Your task to perform on an android device: Open calendar and show me the third week of next month Image 0: 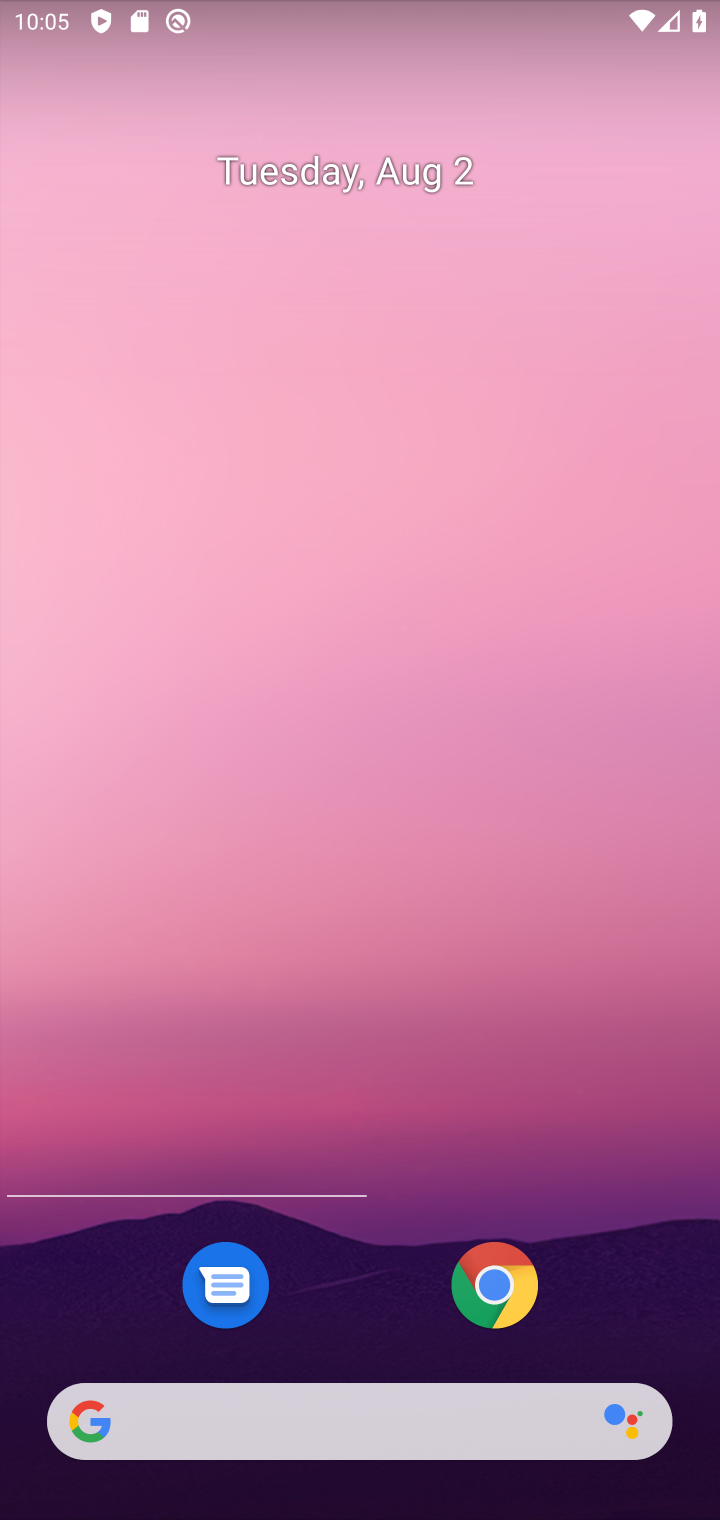
Step 0: click (620, 83)
Your task to perform on an android device: Open calendar and show me the third week of next month Image 1: 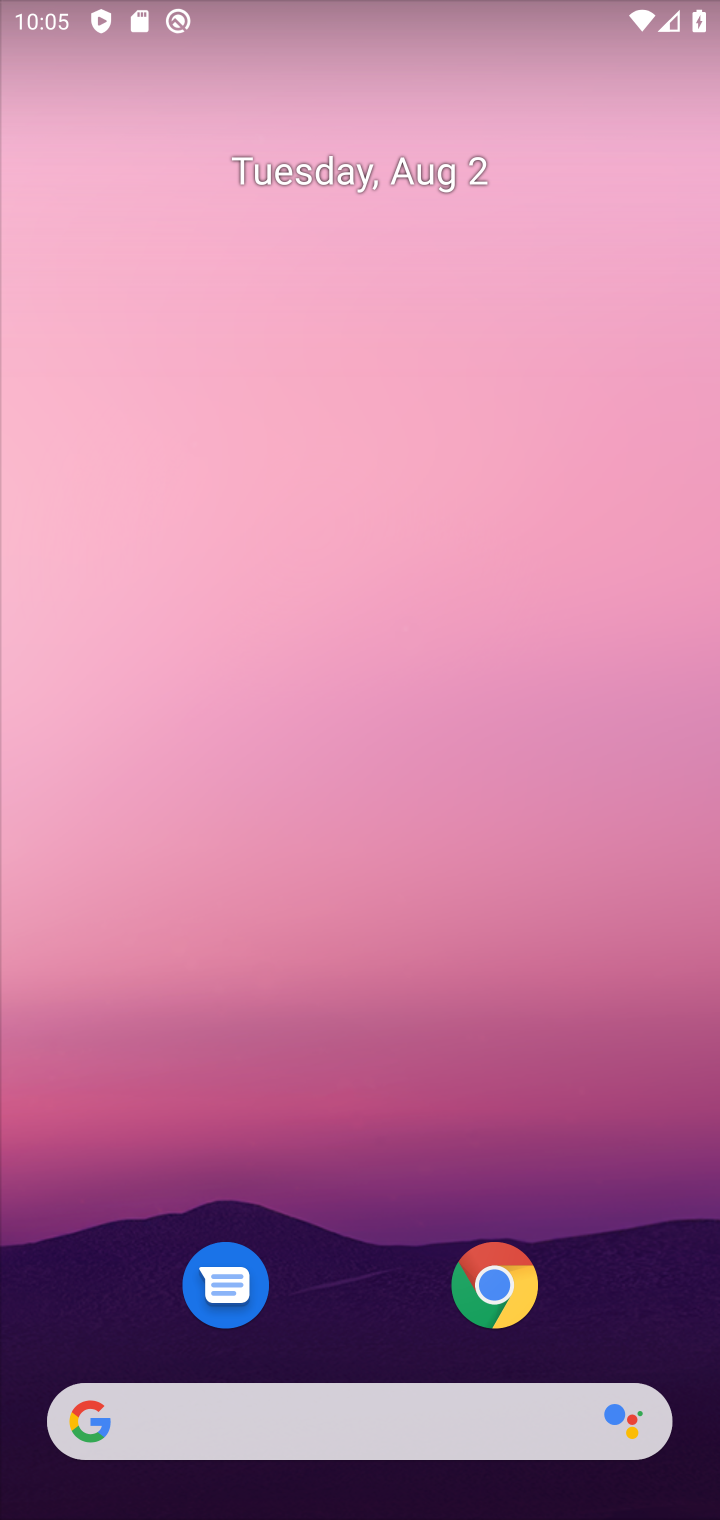
Step 1: drag from (357, 1387) to (632, 263)
Your task to perform on an android device: Open calendar and show me the third week of next month Image 2: 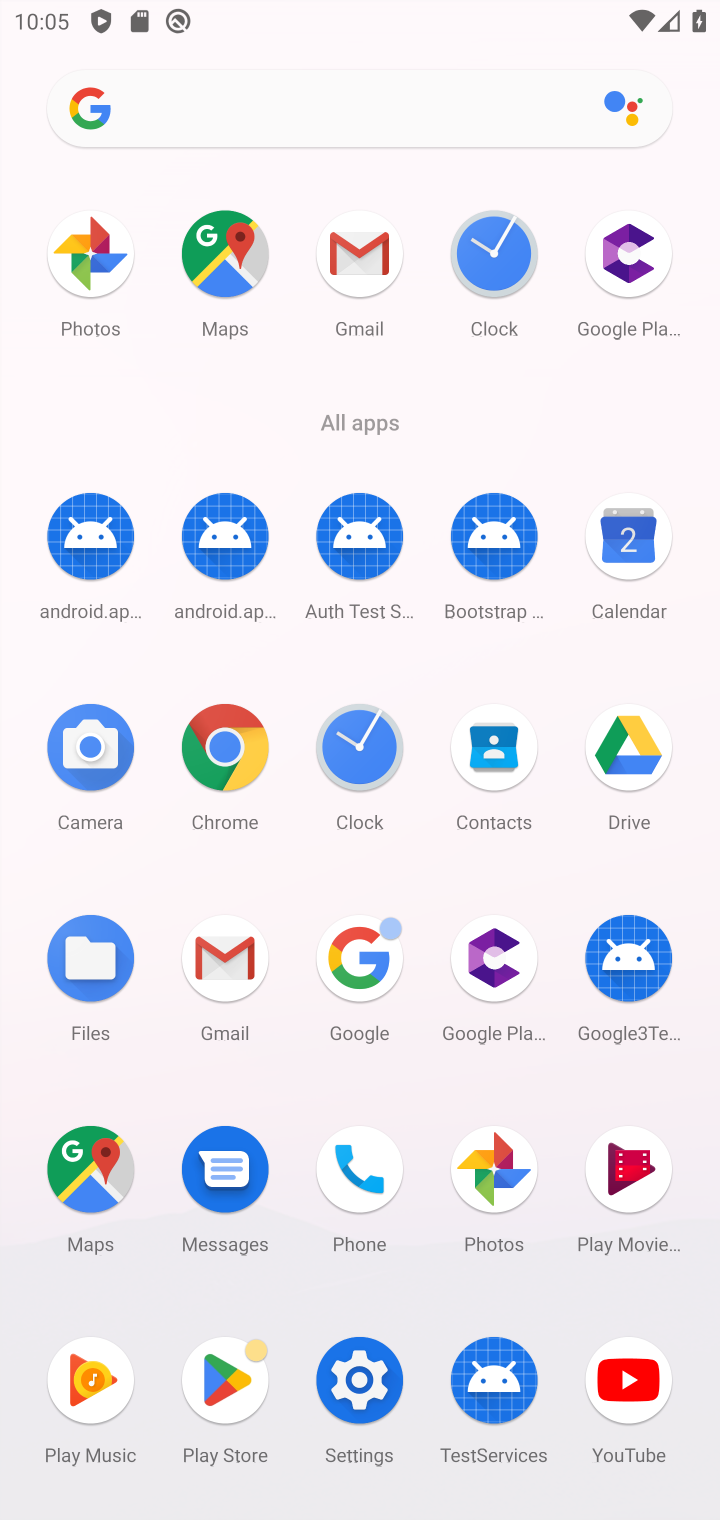
Step 2: drag from (316, 1349) to (544, 338)
Your task to perform on an android device: Open calendar and show me the third week of next month Image 3: 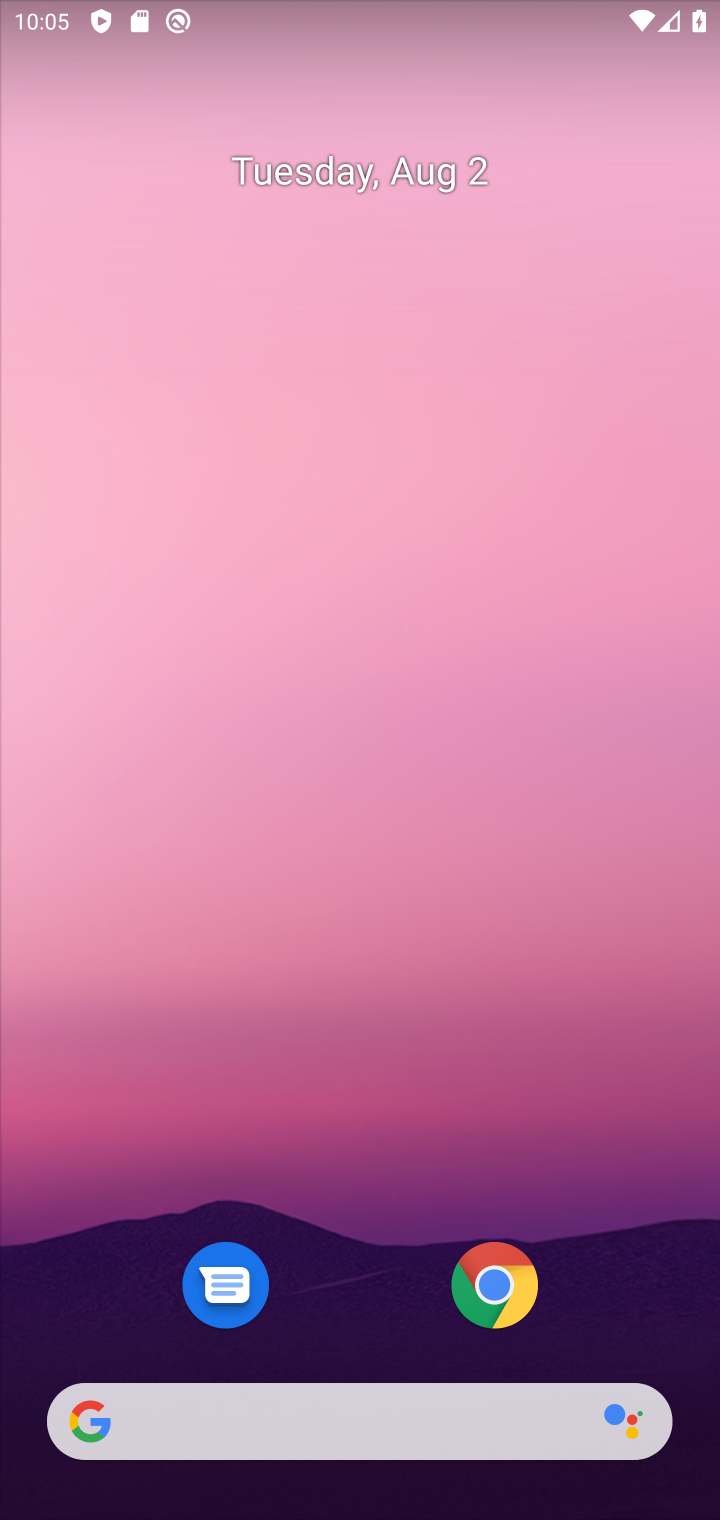
Step 3: drag from (385, 982) to (562, 24)
Your task to perform on an android device: Open calendar and show me the third week of next month Image 4: 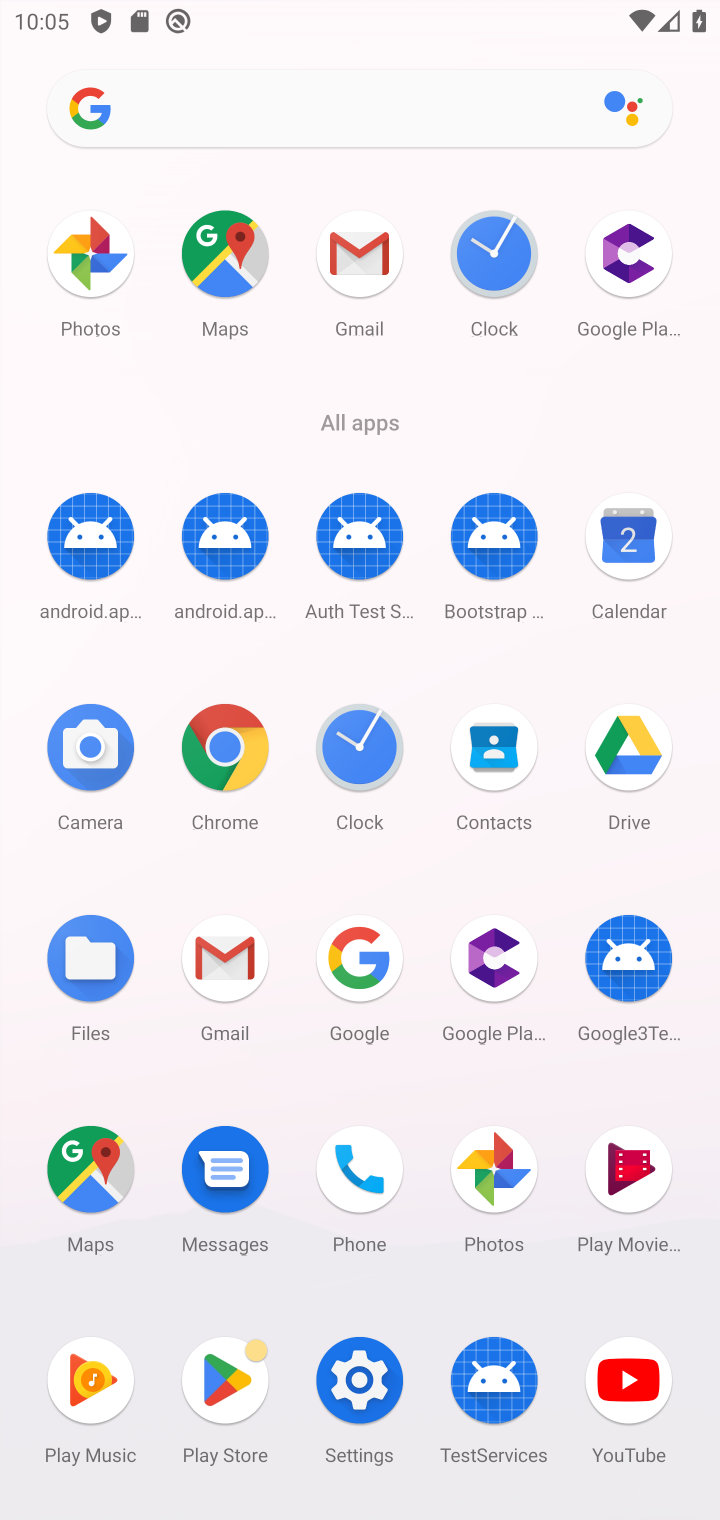
Step 4: click (618, 536)
Your task to perform on an android device: Open calendar and show me the third week of next month Image 5: 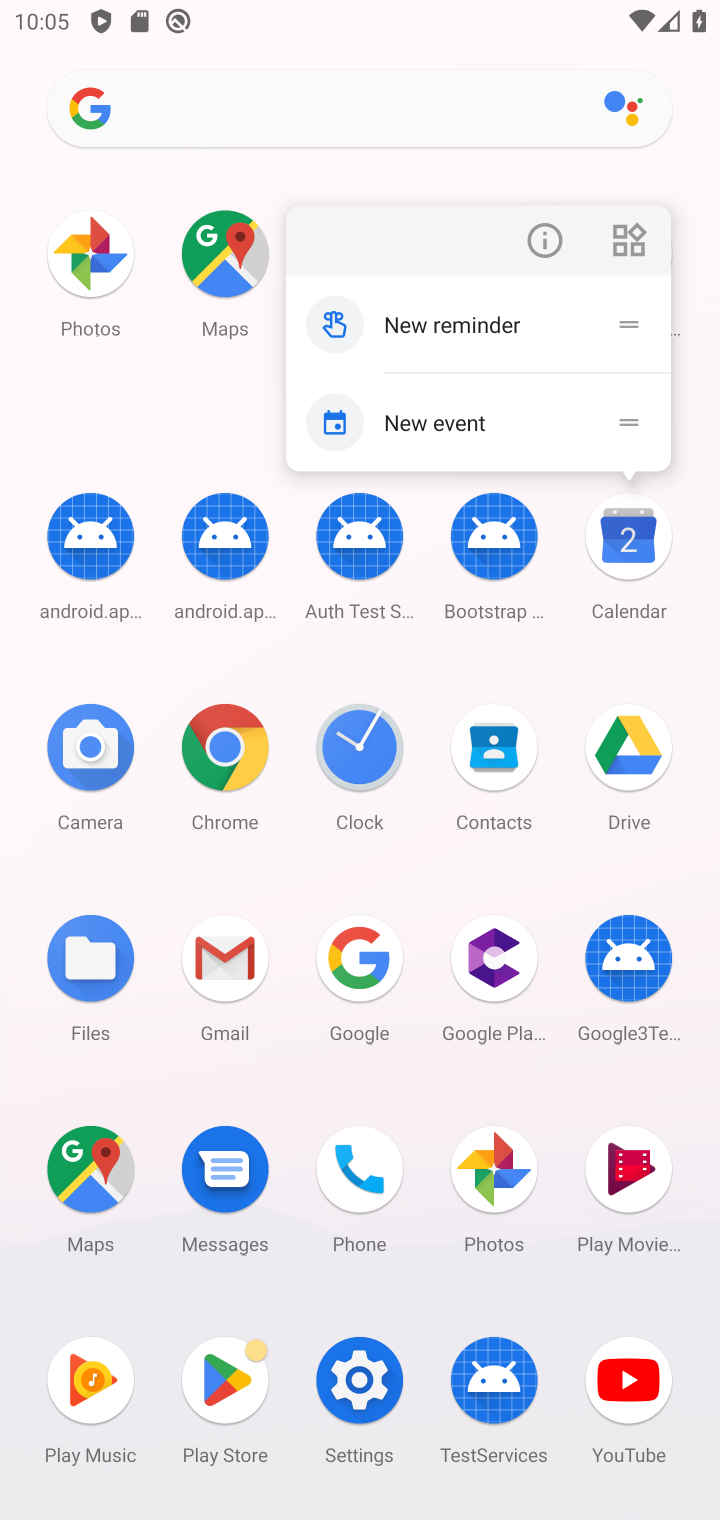
Step 5: click (547, 221)
Your task to perform on an android device: Open calendar and show me the third week of next month Image 6: 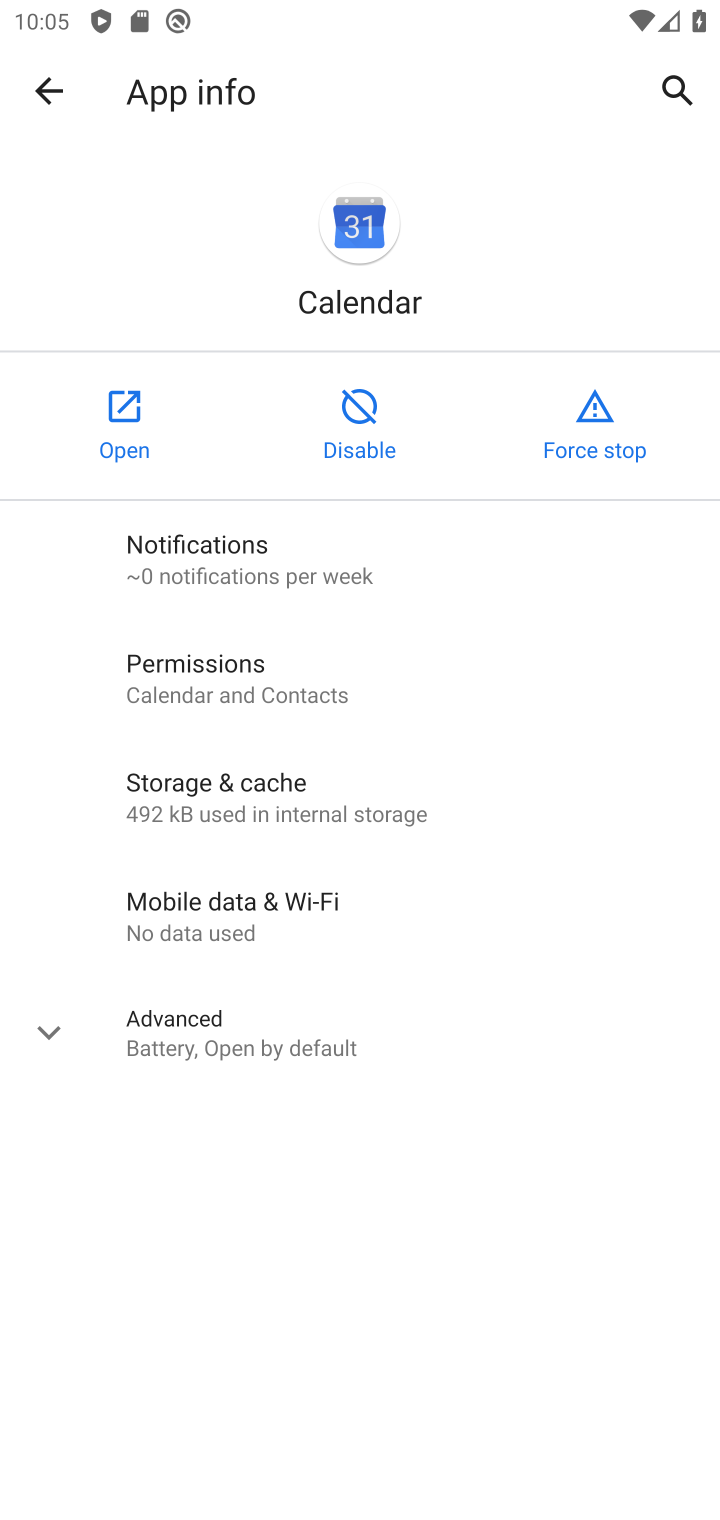
Step 6: click (149, 393)
Your task to perform on an android device: Open calendar and show me the third week of next month Image 7: 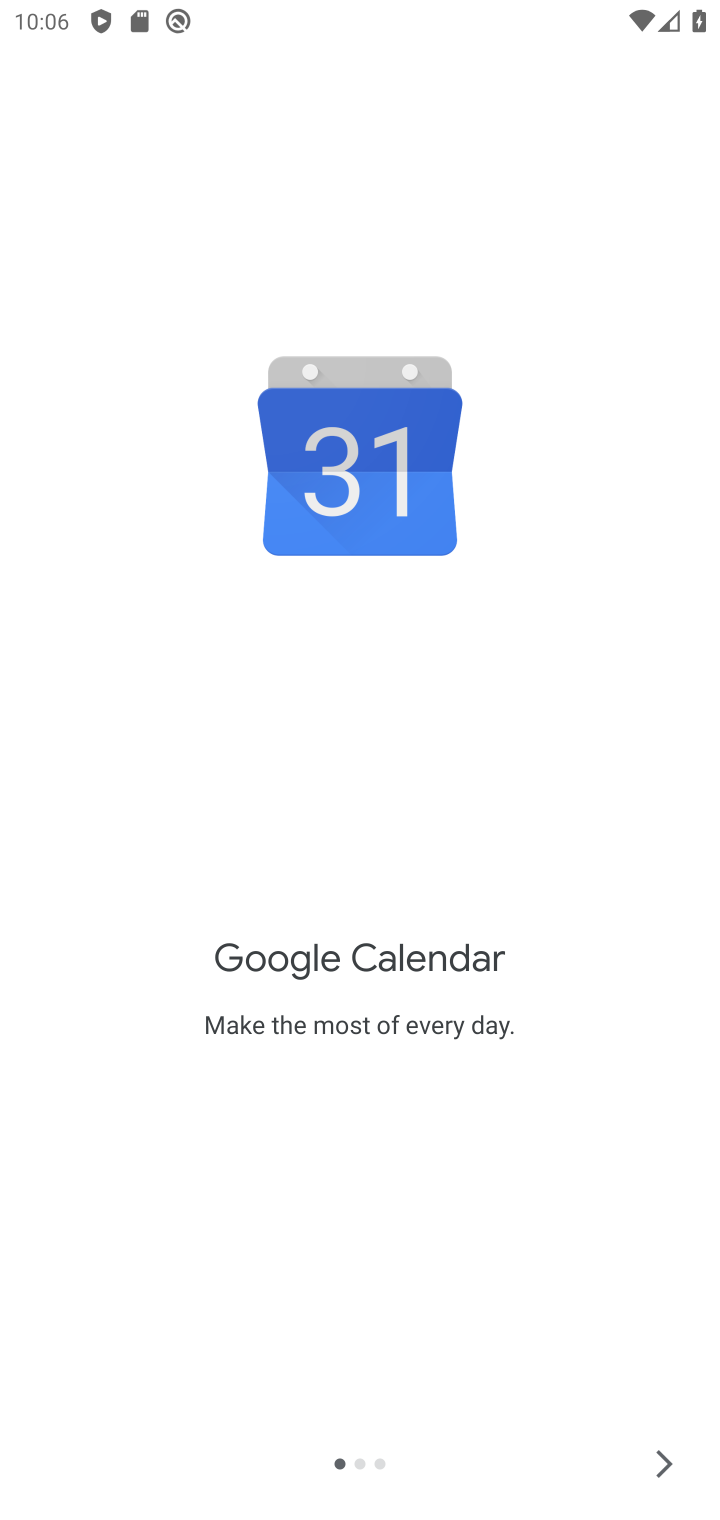
Step 7: click (665, 1454)
Your task to perform on an android device: Open calendar and show me the third week of next month Image 8: 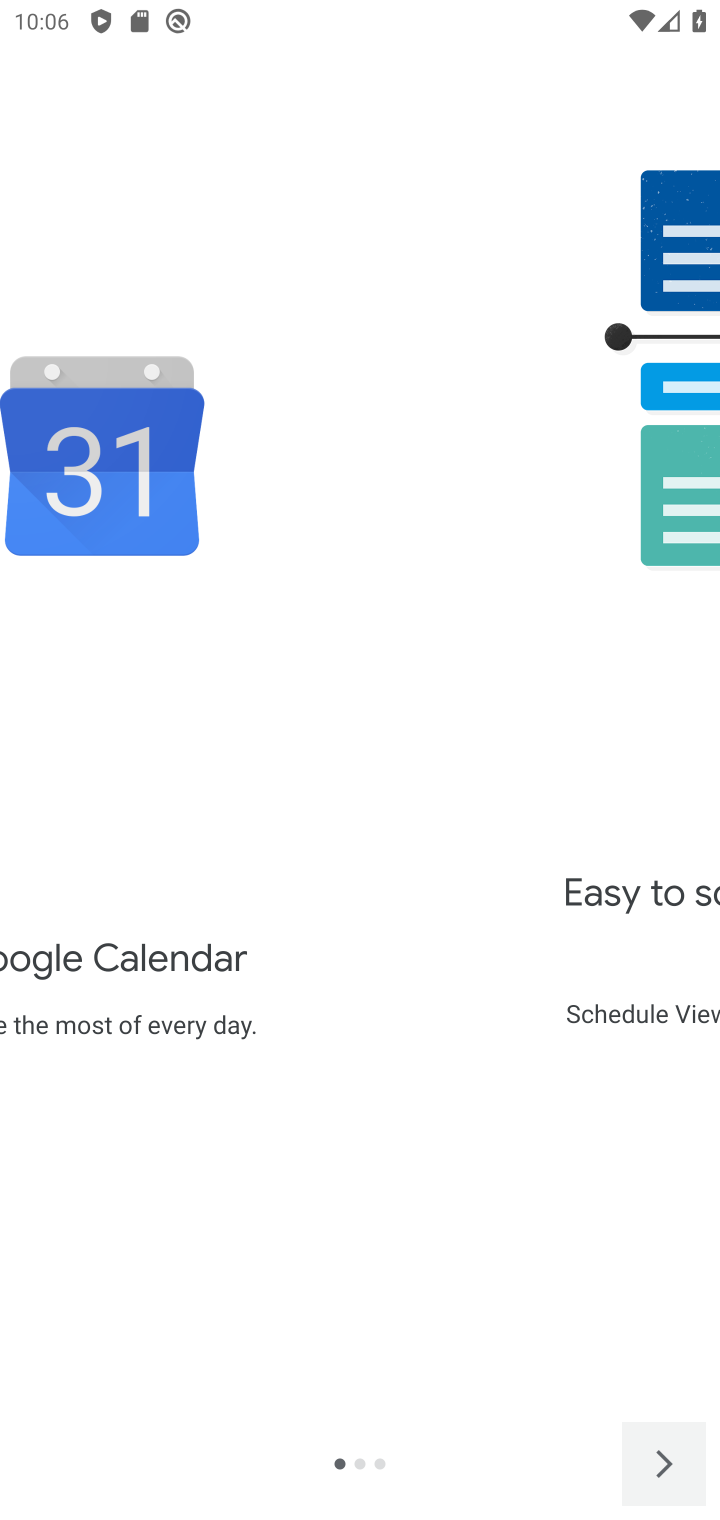
Step 8: click (663, 1450)
Your task to perform on an android device: Open calendar and show me the third week of next month Image 9: 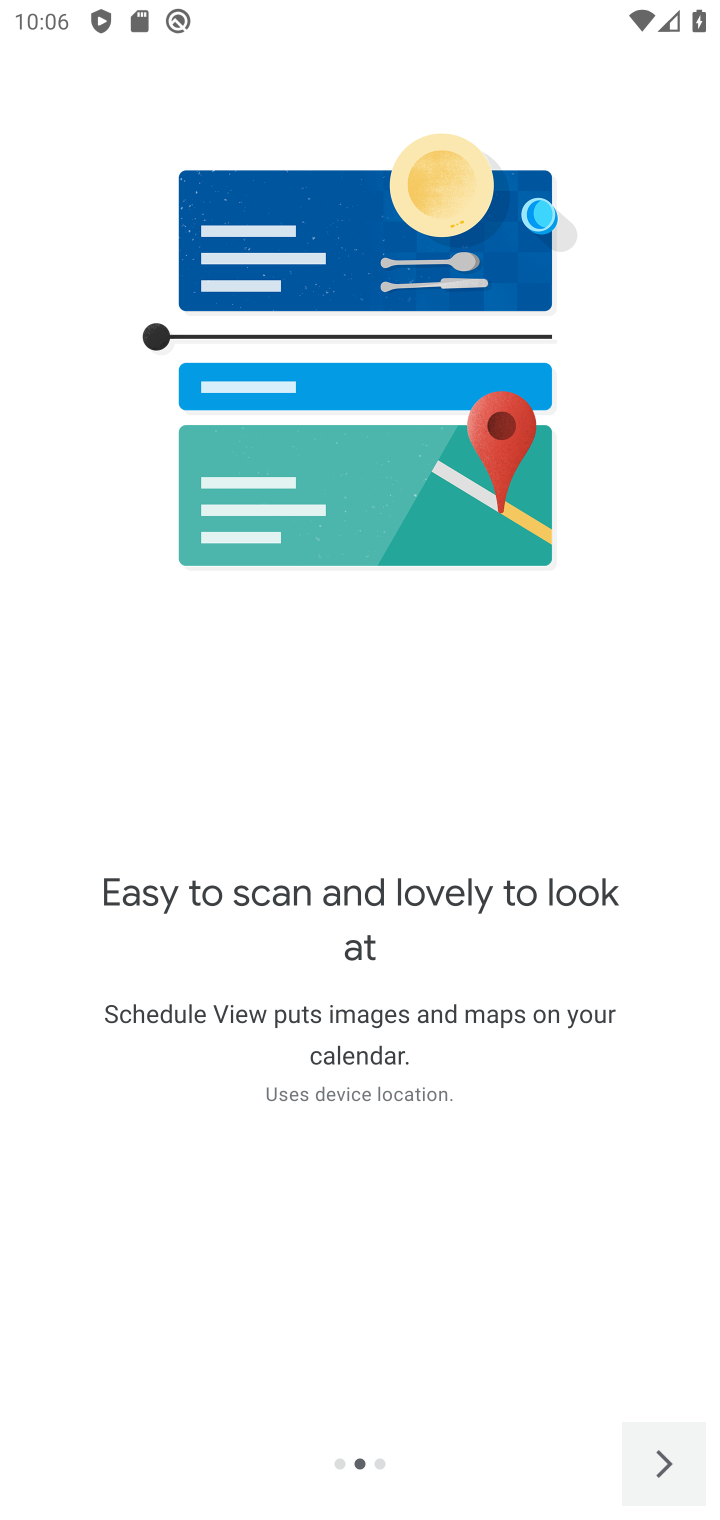
Step 9: click (655, 1448)
Your task to perform on an android device: Open calendar and show me the third week of next month Image 10: 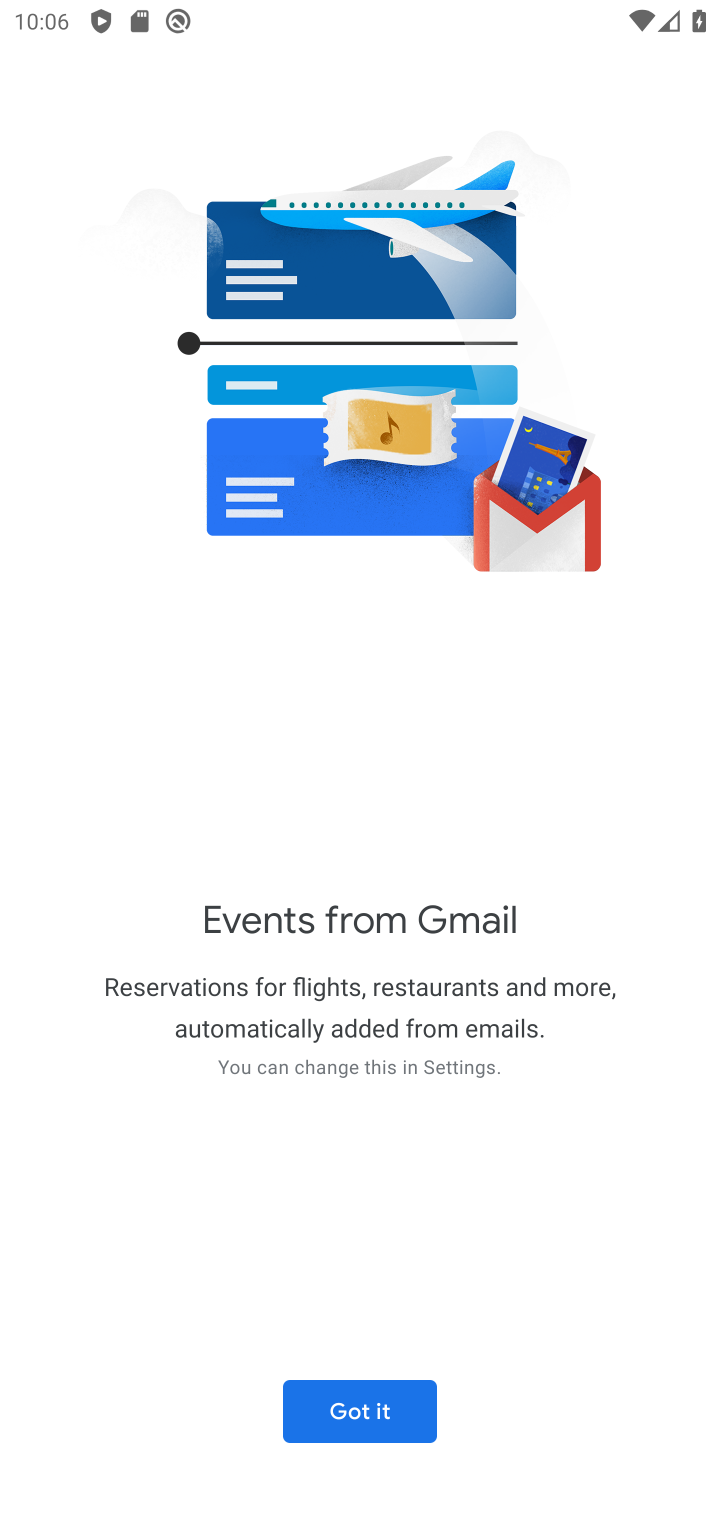
Step 10: click (655, 1448)
Your task to perform on an android device: Open calendar and show me the third week of next month Image 11: 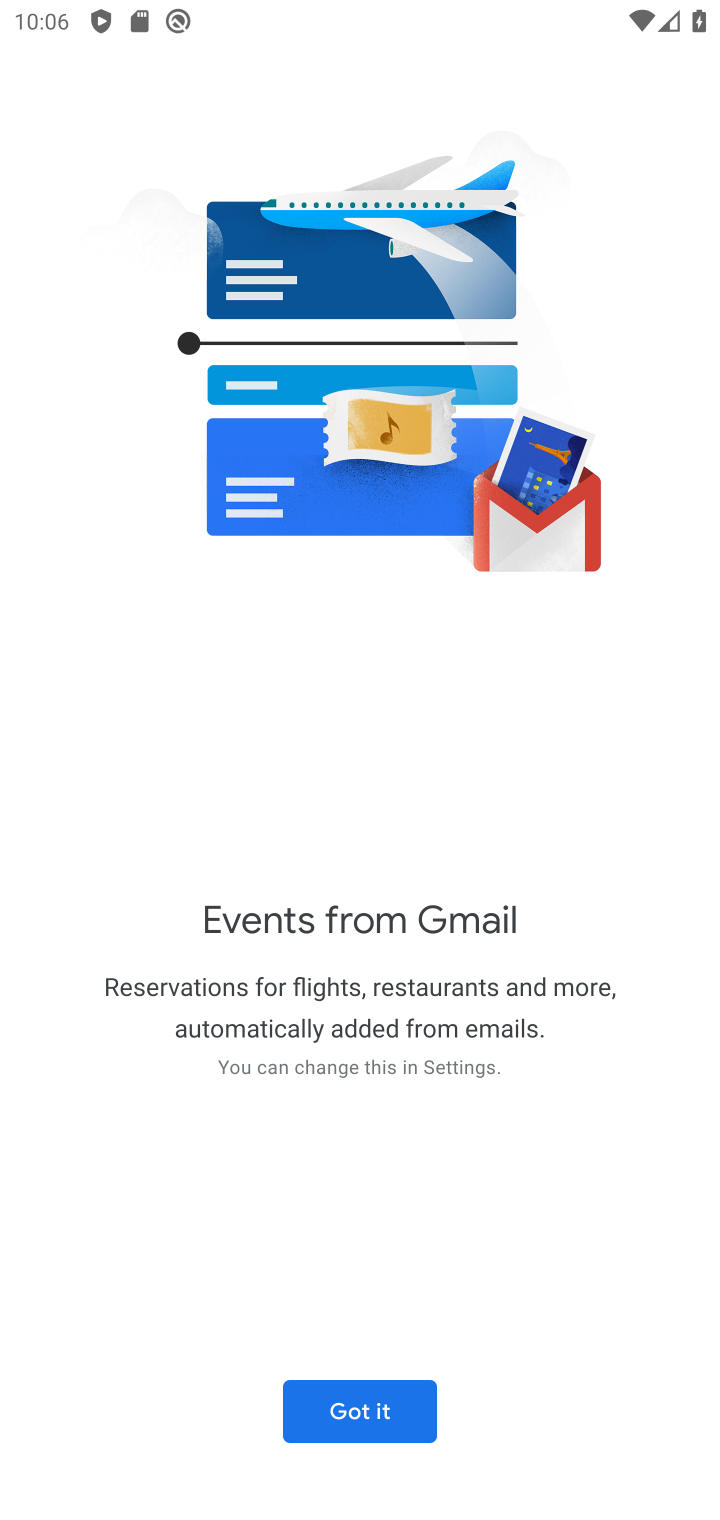
Step 11: click (333, 1423)
Your task to perform on an android device: Open calendar and show me the third week of next month Image 12: 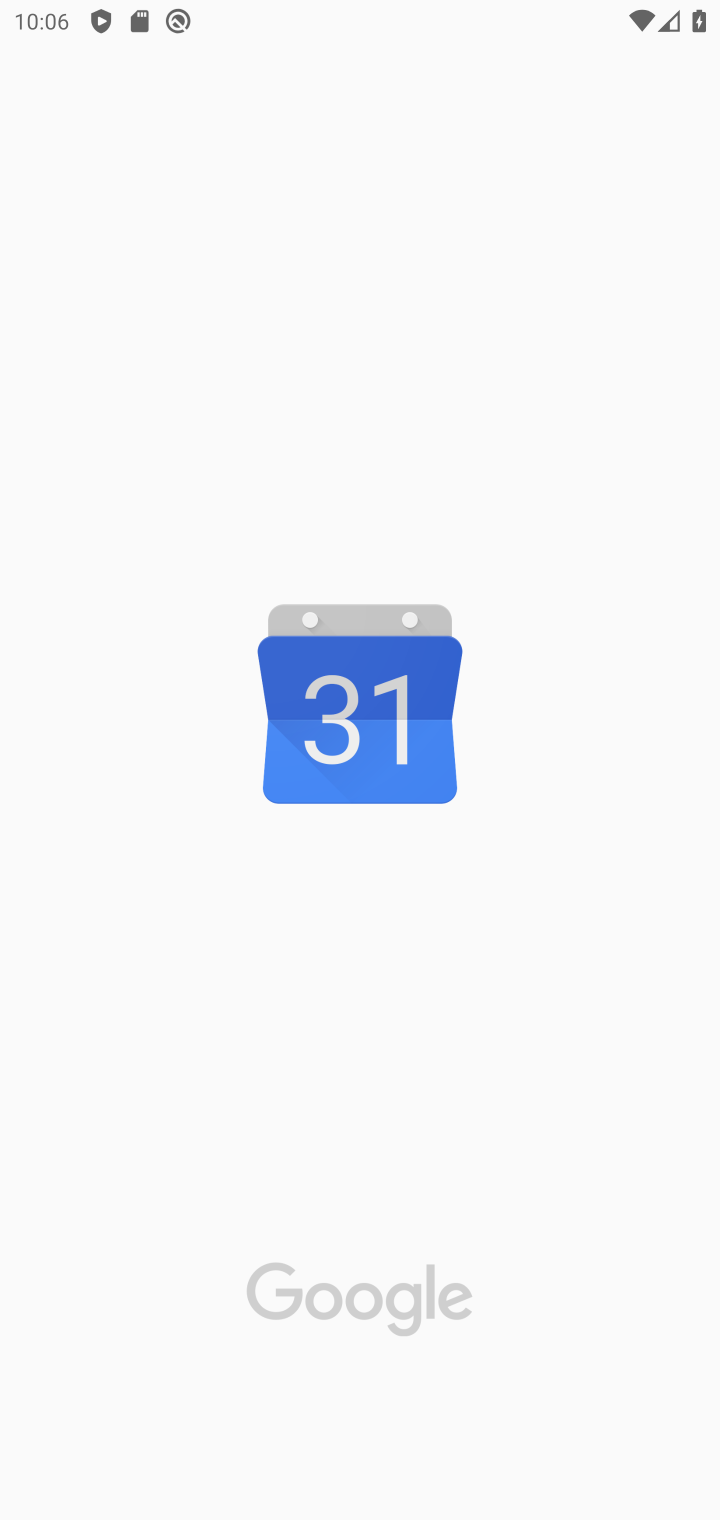
Step 12: click (416, 447)
Your task to perform on an android device: Open calendar and show me the third week of next month Image 13: 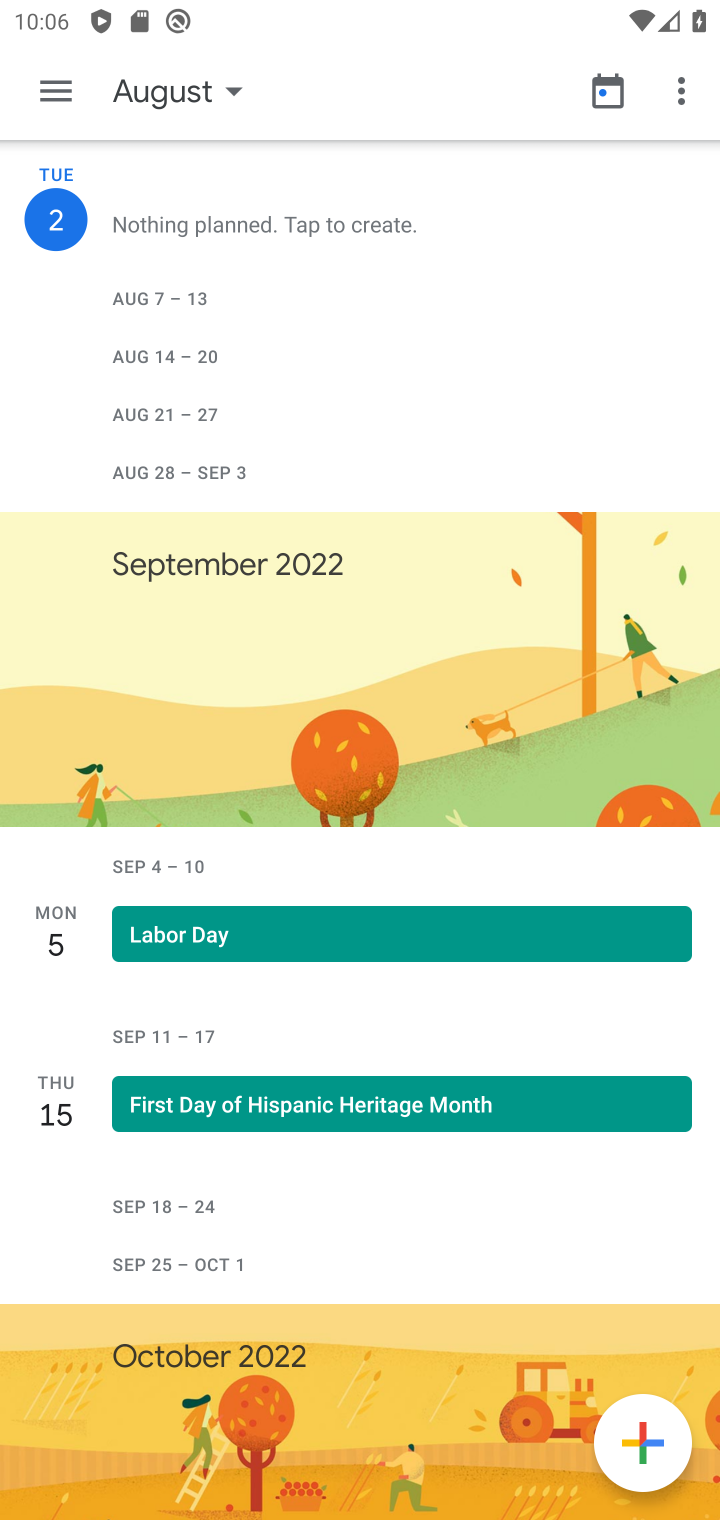
Step 13: drag from (399, 699) to (556, 1382)
Your task to perform on an android device: Open calendar and show me the third week of next month Image 14: 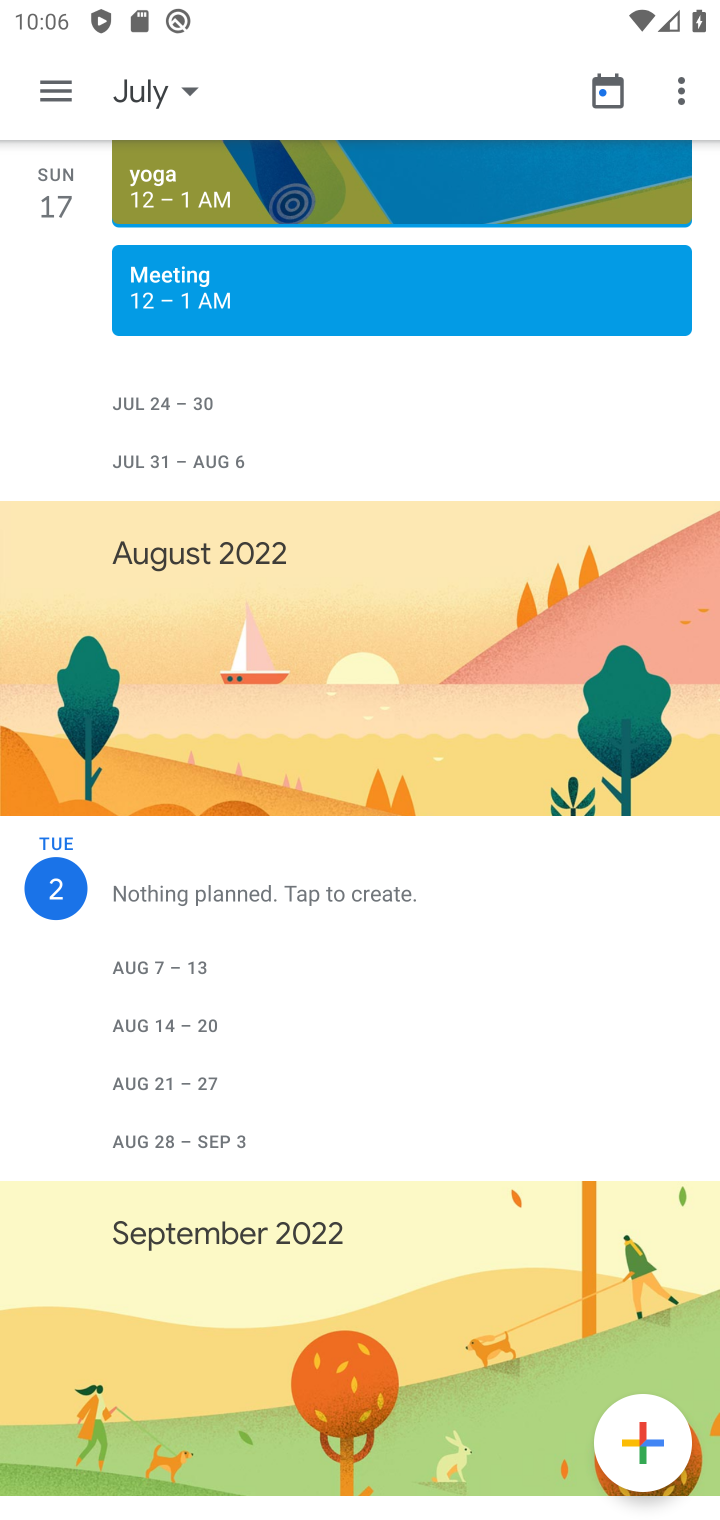
Step 14: click (195, 110)
Your task to perform on an android device: Open calendar and show me the third week of next month Image 15: 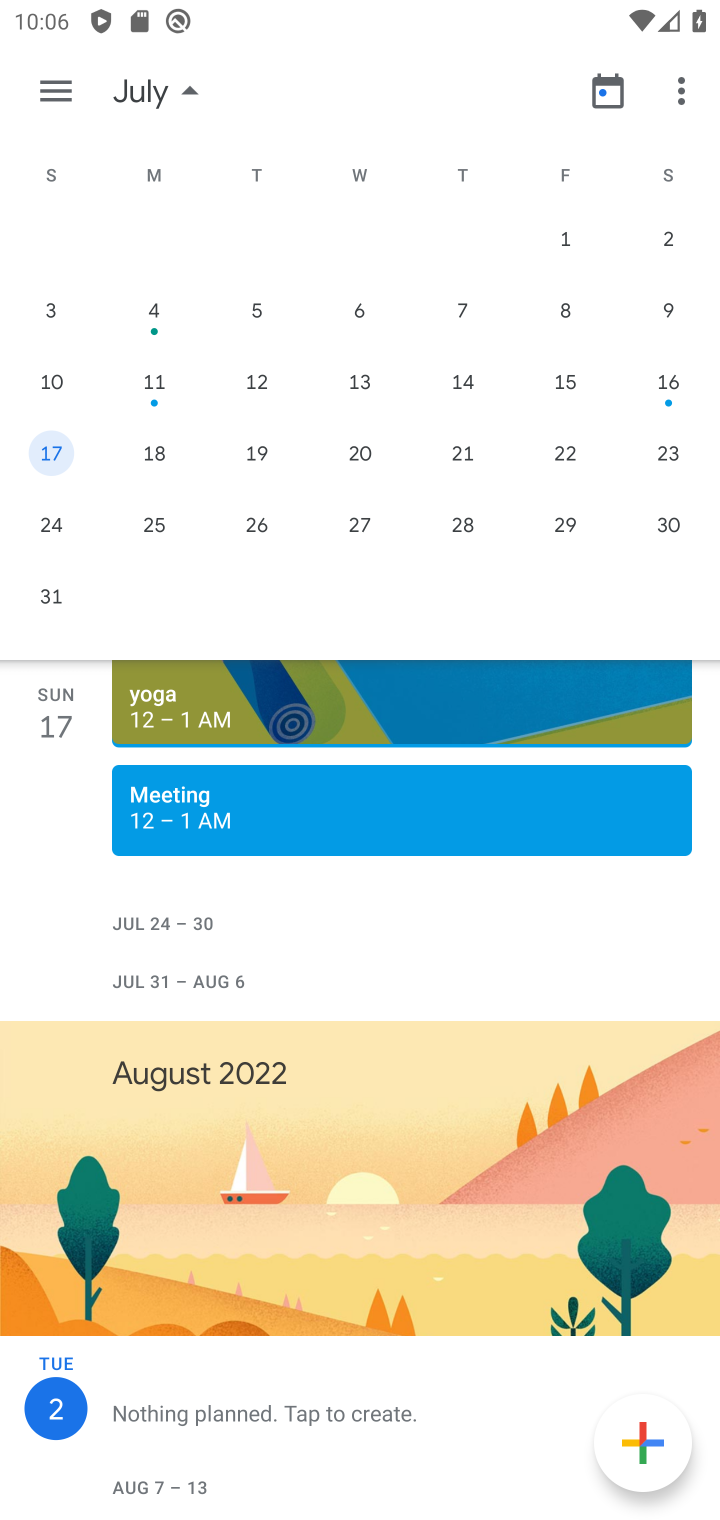
Step 15: drag from (570, 457) to (94, 460)
Your task to perform on an android device: Open calendar and show me the third week of next month Image 16: 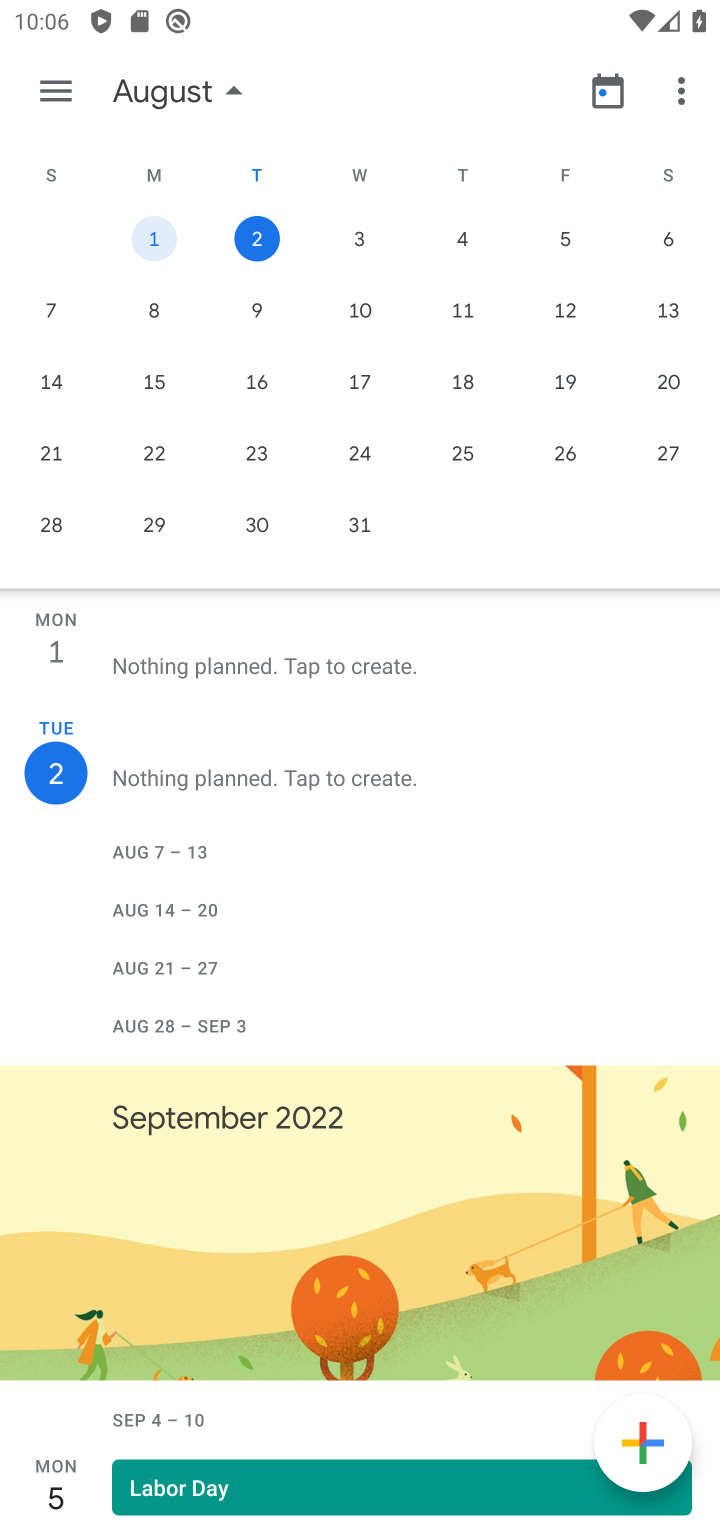
Step 16: drag from (621, 305) to (15, 247)
Your task to perform on an android device: Open calendar and show me the third week of next month Image 17: 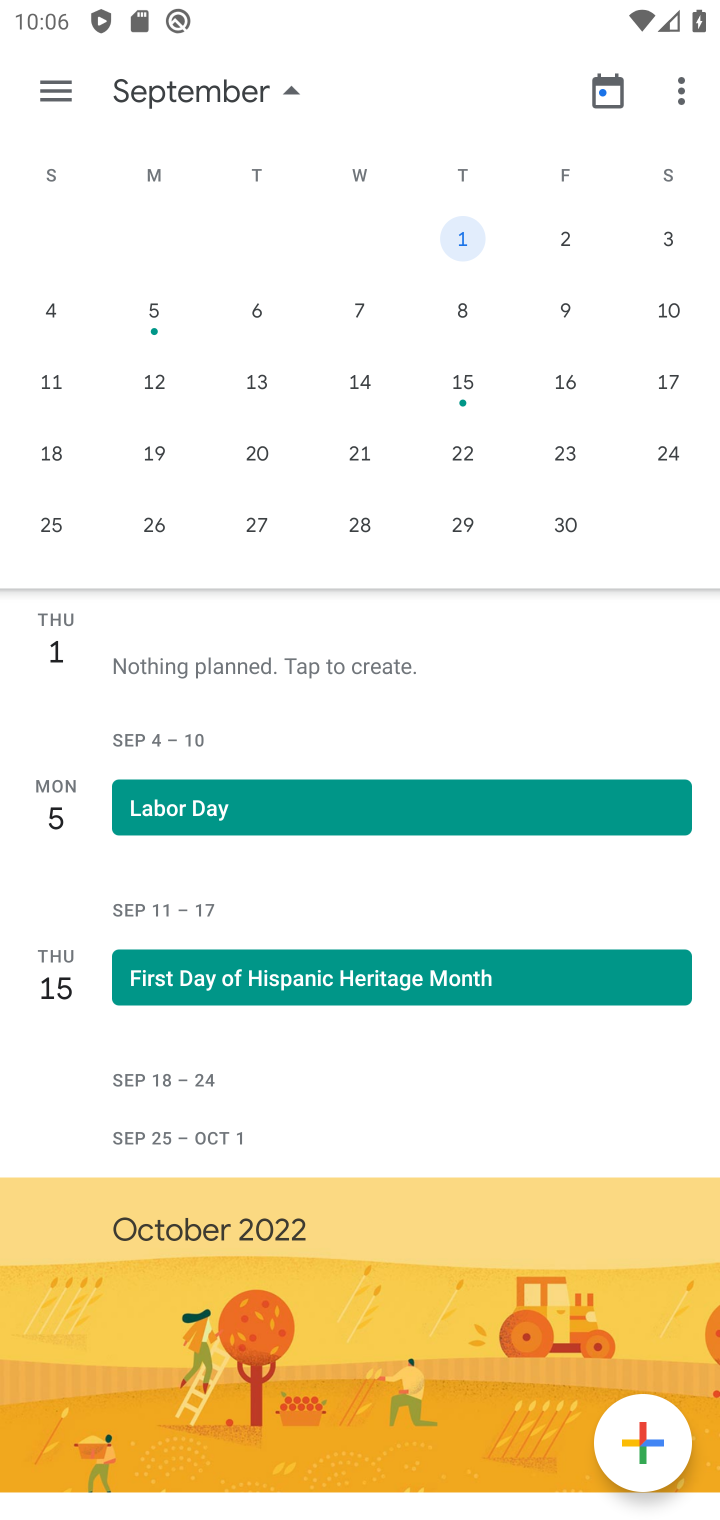
Step 17: click (274, 384)
Your task to perform on an android device: Open calendar and show me the third week of next month Image 18: 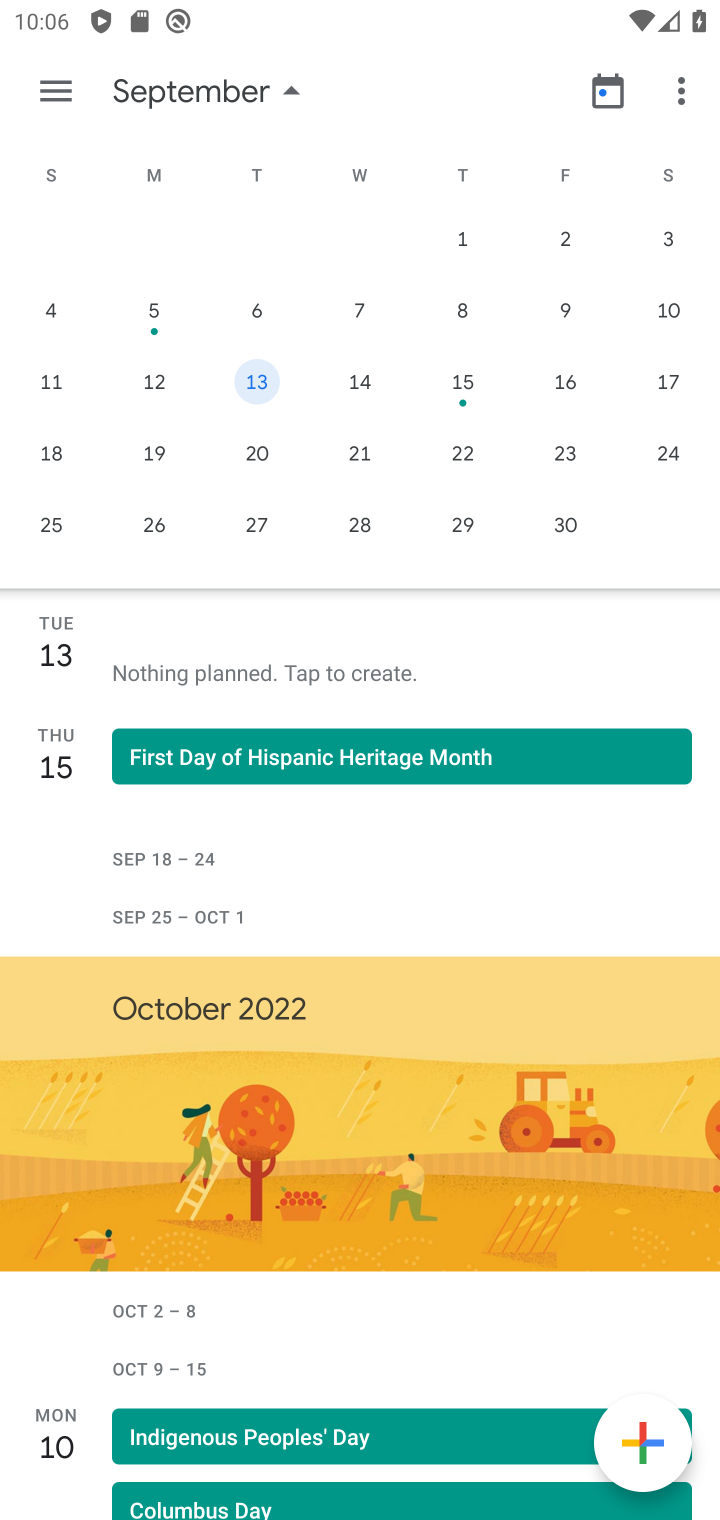
Step 18: task complete